Your task to perform on an android device: star an email in the gmail app Image 0: 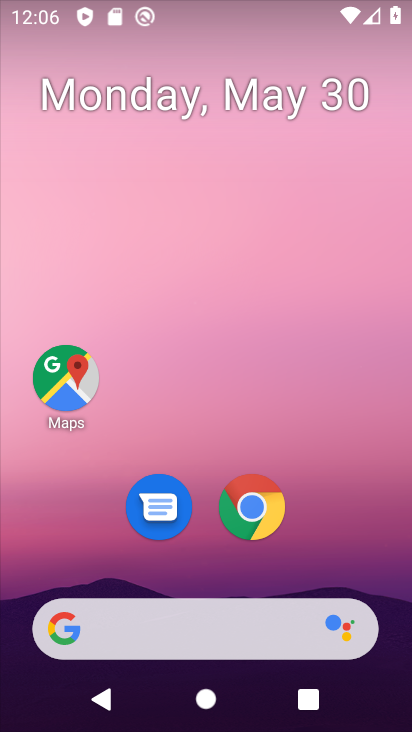
Step 0: drag from (327, 530) to (288, 221)
Your task to perform on an android device: star an email in the gmail app Image 1: 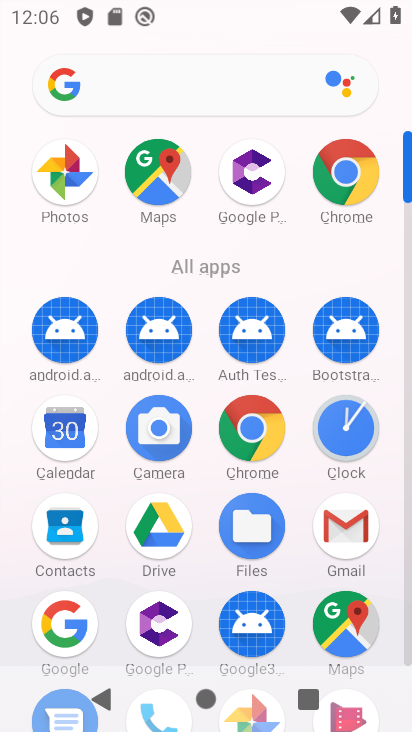
Step 1: click (345, 518)
Your task to perform on an android device: star an email in the gmail app Image 2: 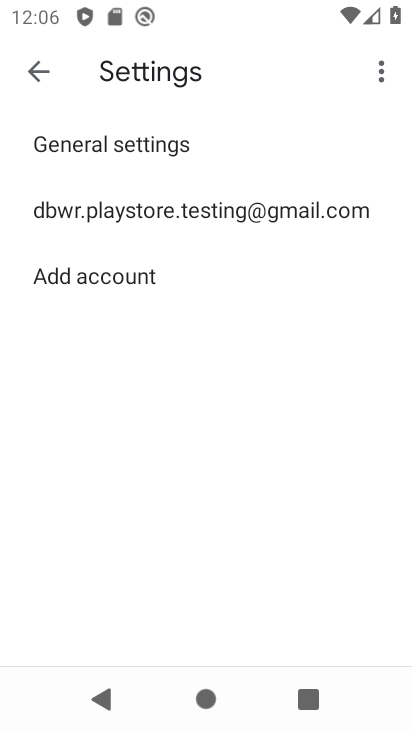
Step 2: click (104, 205)
Your task to perform on an android device: star an email in the gmail app Image 3: 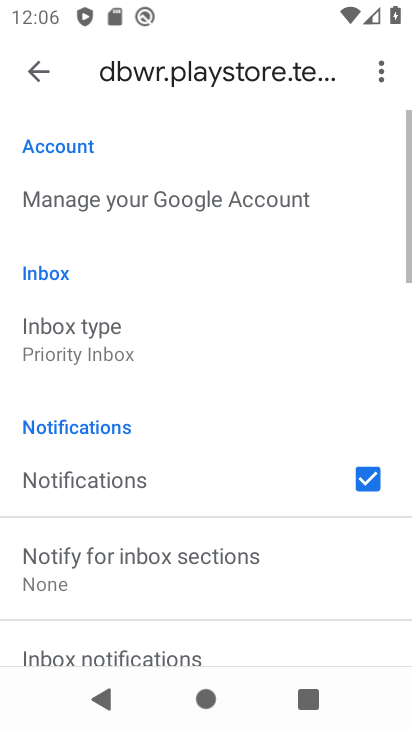
Step 3: click (44, 67)
Your task to perform on an android device: star an email in the gmail app Image 4: 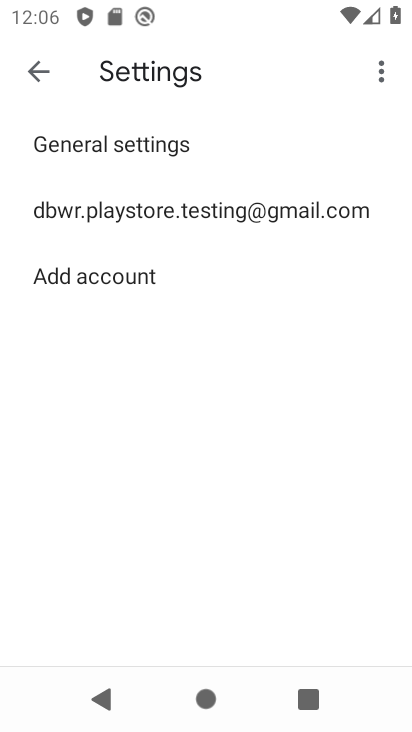
Step 4: click (44, 67)
Your task to perform on an android device: star an email in the gmail app Image 5: 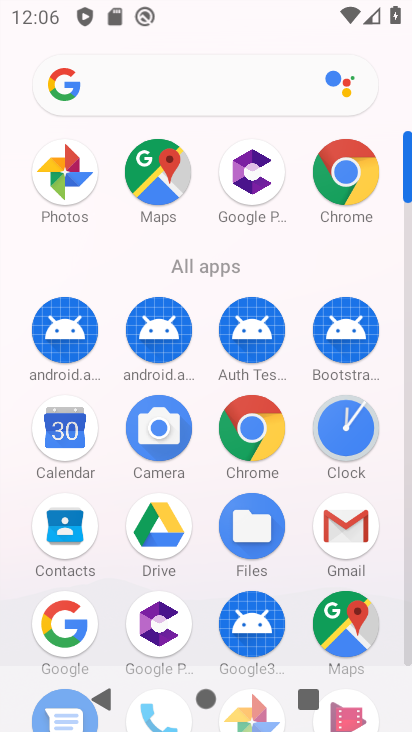
Step 5: click (346, 507)
Your task to perform on an android device: star an email in the gmail app Image 6: 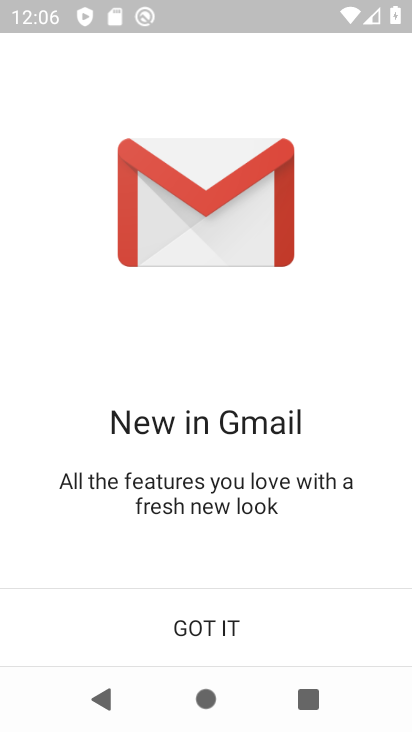
Step 6: click (228, 639)
Your task to perform on an android device: star an email in the gmail app Image 7: 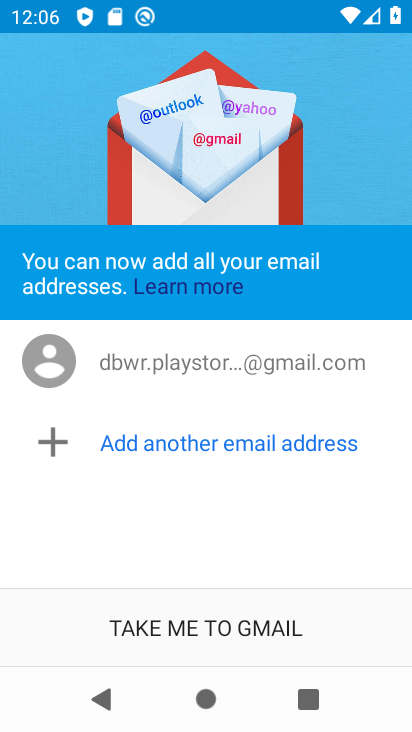
Step 7: click (223, 629)
Your task to perform on an android device: star an email in the gmail app Image 8: 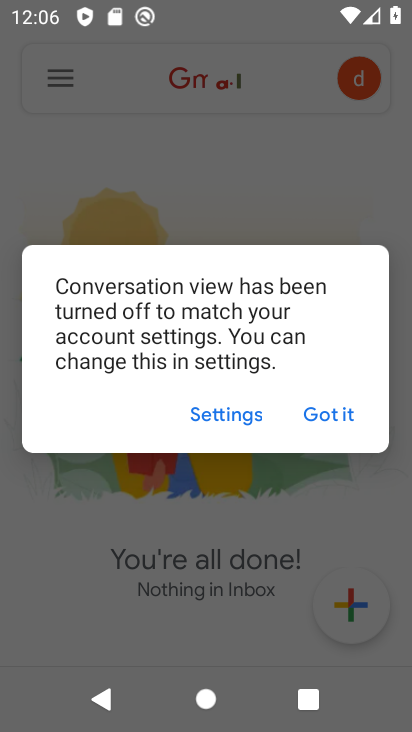
Step 8: click (330, 414)
Your task to perform on an android device: star an email in the gmail app Image 9: 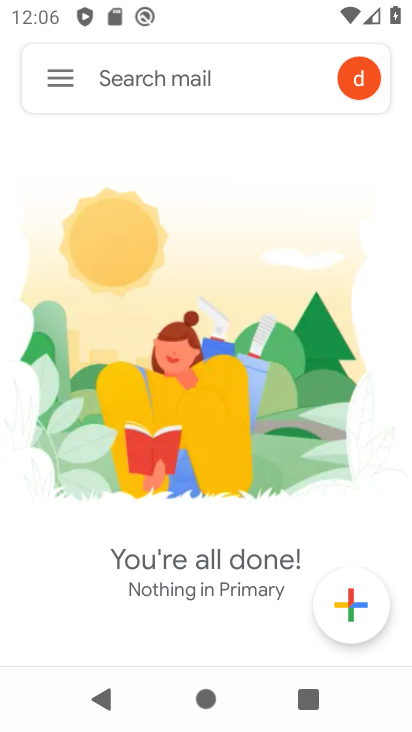
Step 9: click (71, 70)
Your task to perform on an android device: star an email in the gmail app Image 10: 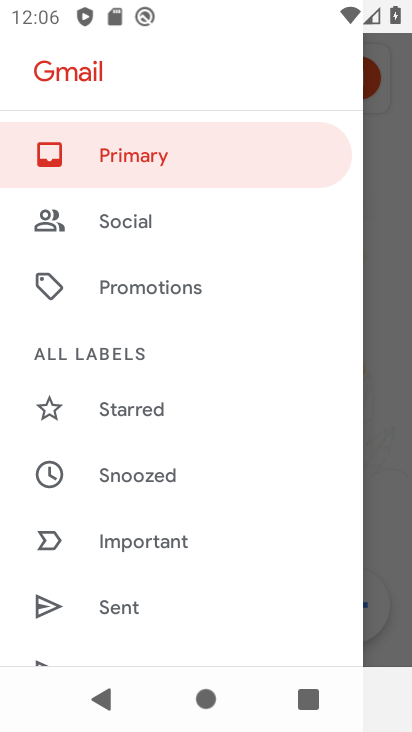
Step 10: drag from (152, 575) to (159, 348)
Your task to perform on an android device: star an email in the gmail app Image 11: 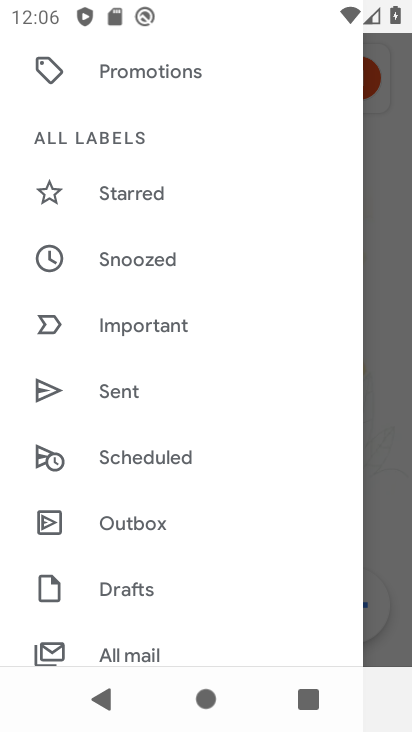
Step 11: click (143, 205)
Your task to perform on an android device: star an email in the gmail app Image 12: 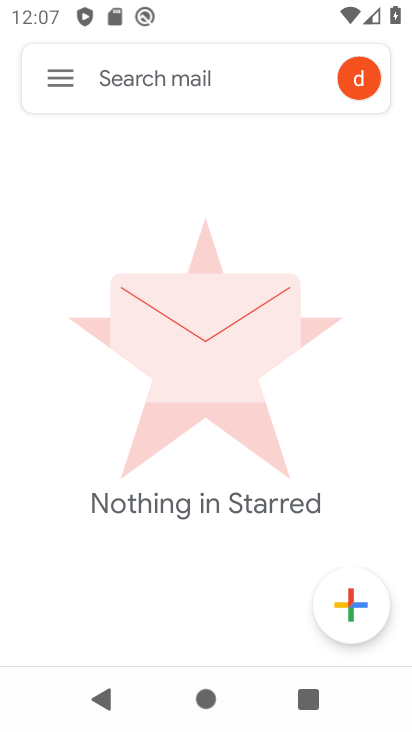
Step 12: click (58, 75)
Your task to perform on an android device: star an email in the gmail app Image 13: 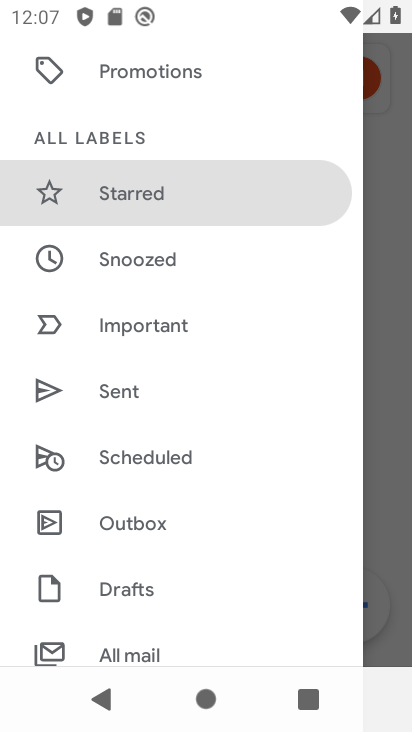
Step 13: task complete